Your task to perform on an android device: turn on javascript in the chrome app Image 0: 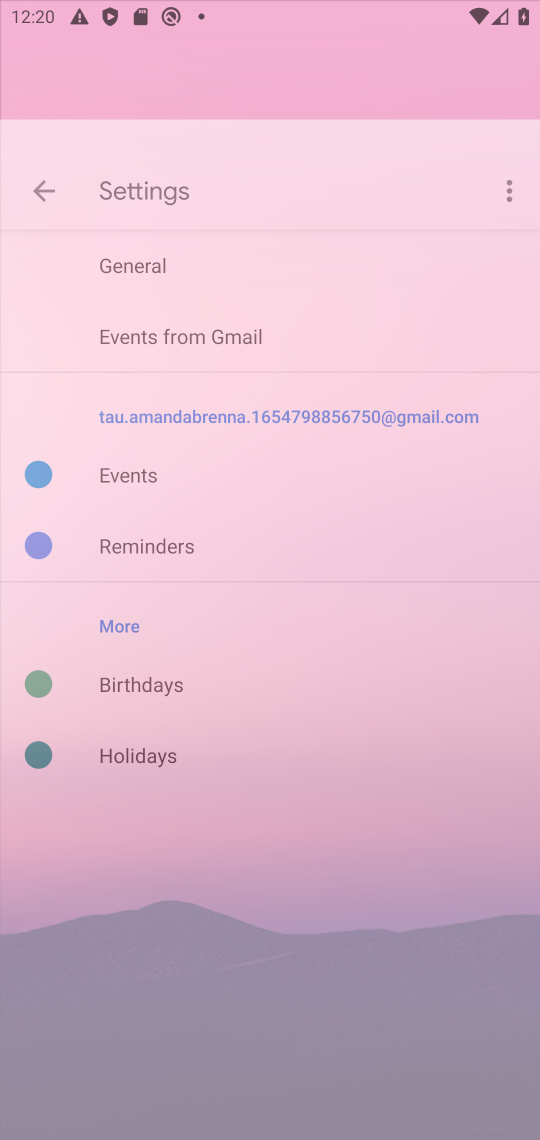
Step 0: click (214, 295)
Your task to perform on an android device: turn on javascript in the chrome app Image 1: 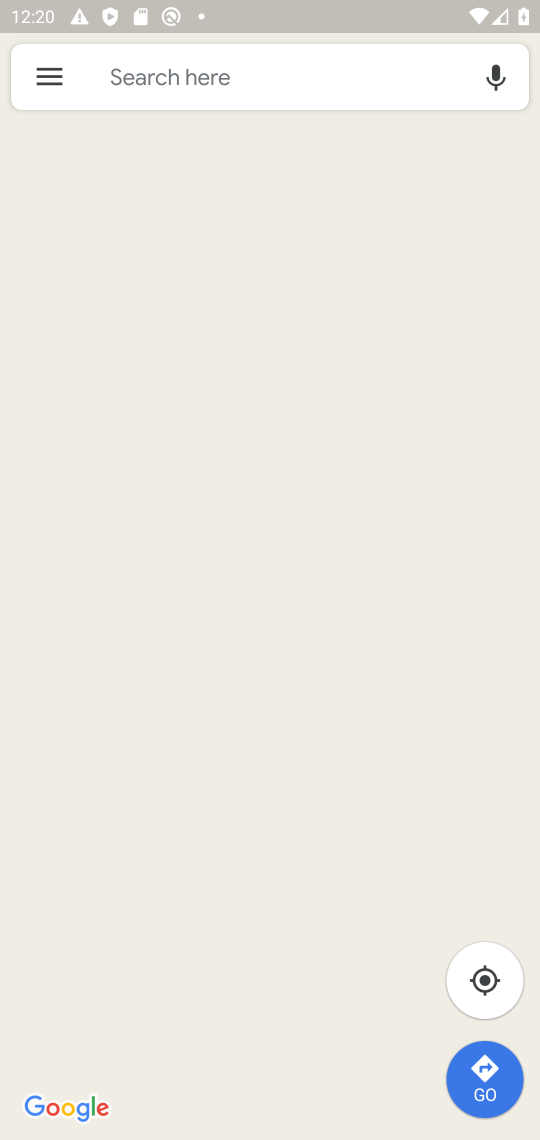
Step 1: press home button
Your task to perform on an android device: turn on javascript in the chrome app Image 2: 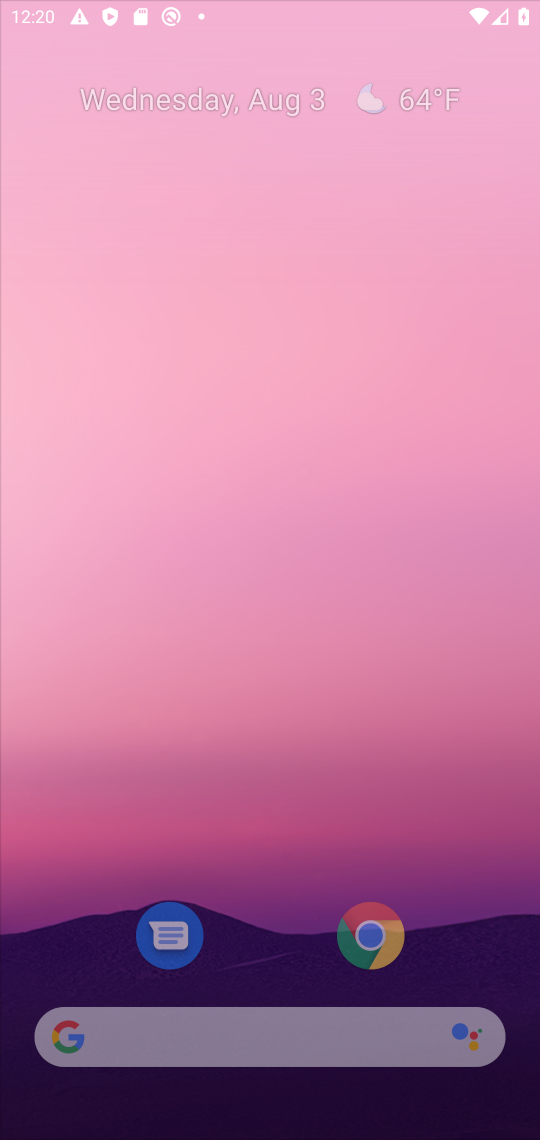
Step 2: press home button
Your task to perform on an android device: turn on javascript in the chrome app Image 3: 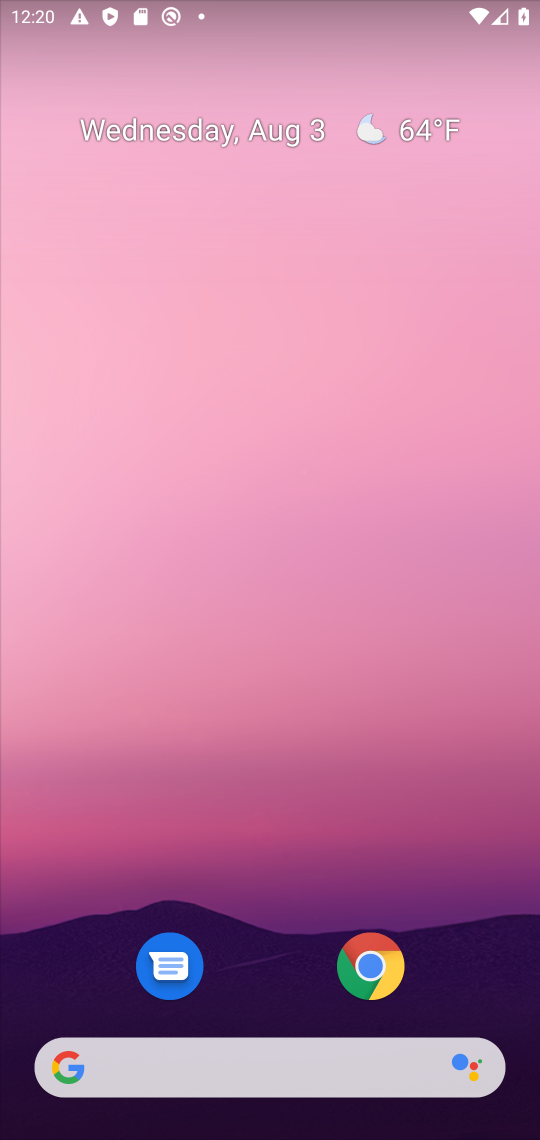
Step 3: drag from (273, 872) to (152, 286)
Your task to perform on an android device: turn on javascript in the chrome app Image 4: 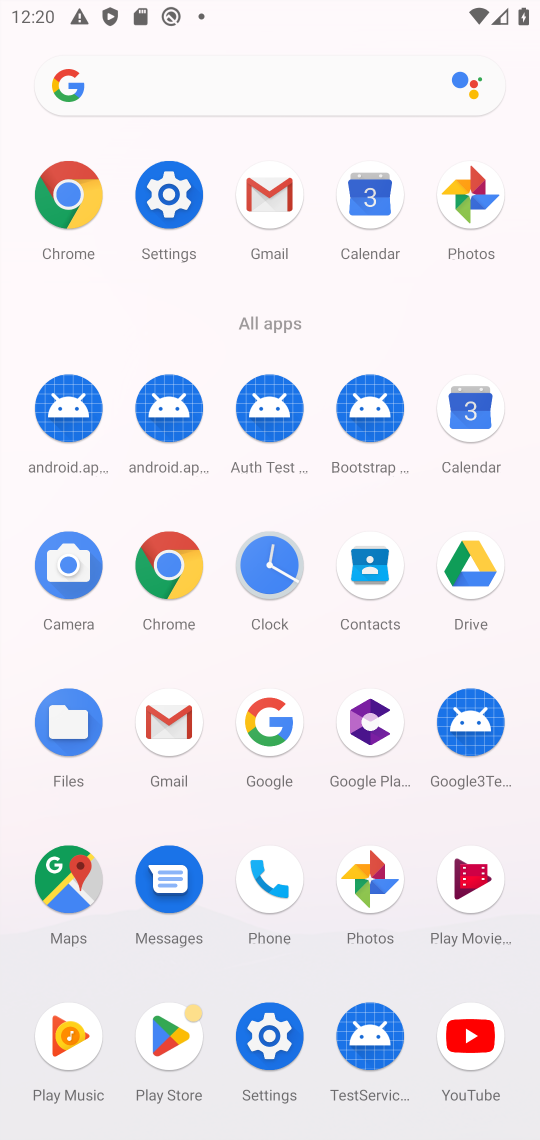
Step 4: click (92, 200)
Your task to perform on an android device: turn on javascript in the chrome app Image 5: 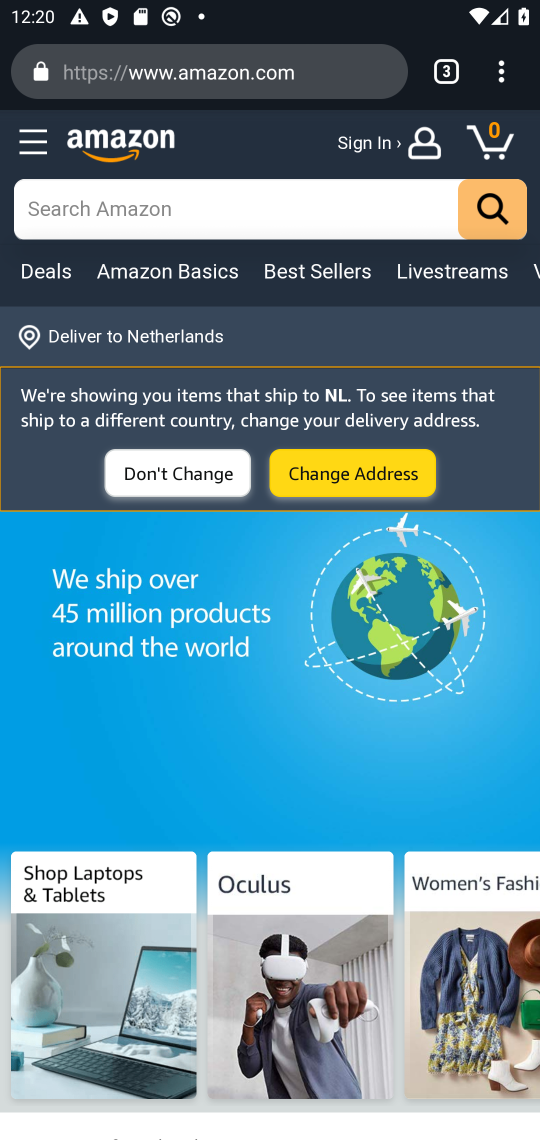
Step 5: click (504, 78)
Your task to perform on an android device: turn on javascript in the chrome app Image 6: 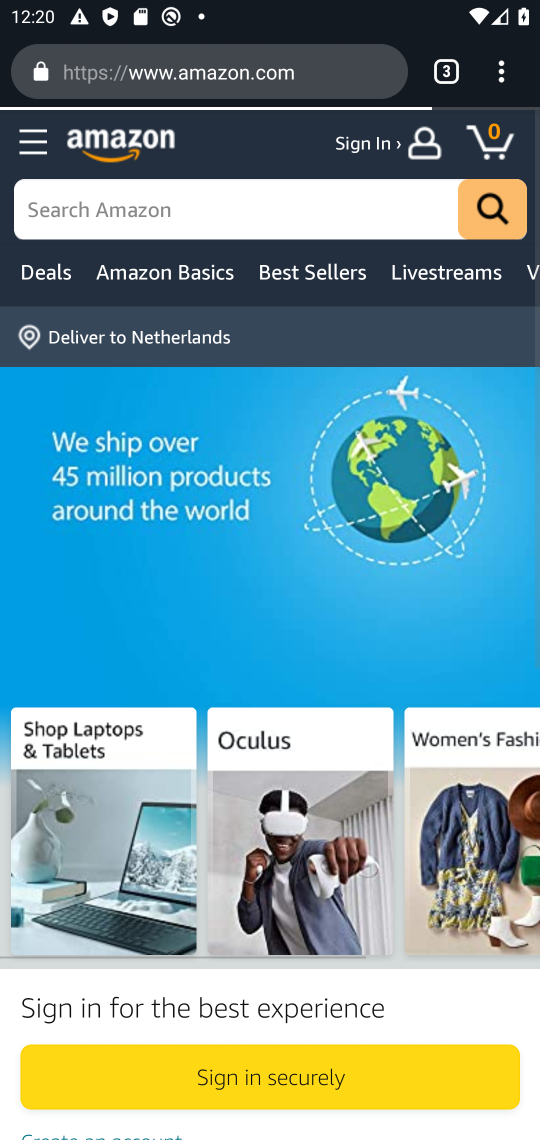
Step 6: click (500, 77)
Your task to perform on an android device: turn on javascript in the chrome app Image 7: 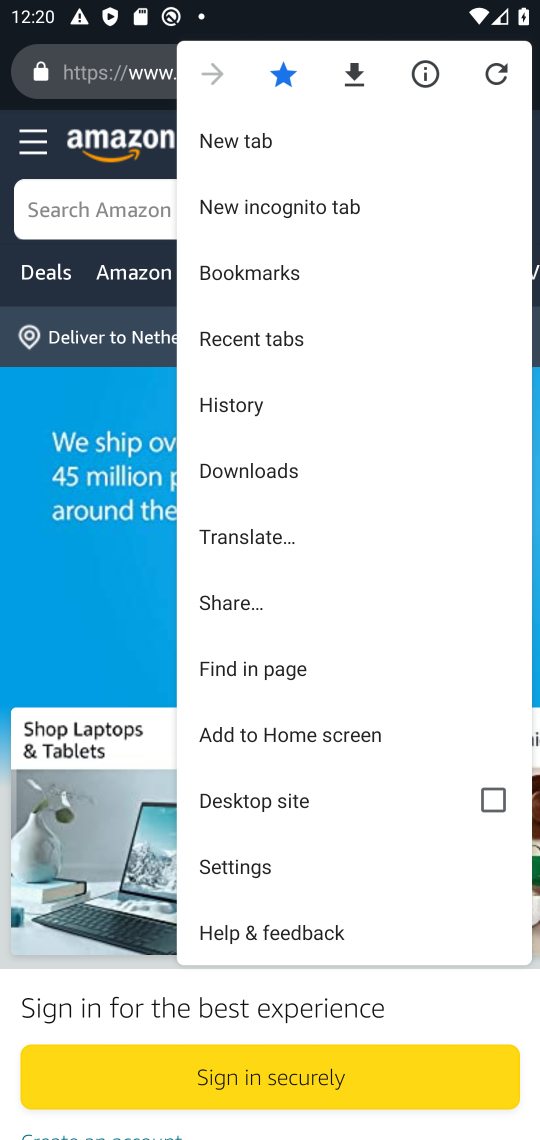
Step 7: drag from (291, 842) to (286, 463)
Your task to perform on an android device: turn on javascript in the chrome app Image 8: 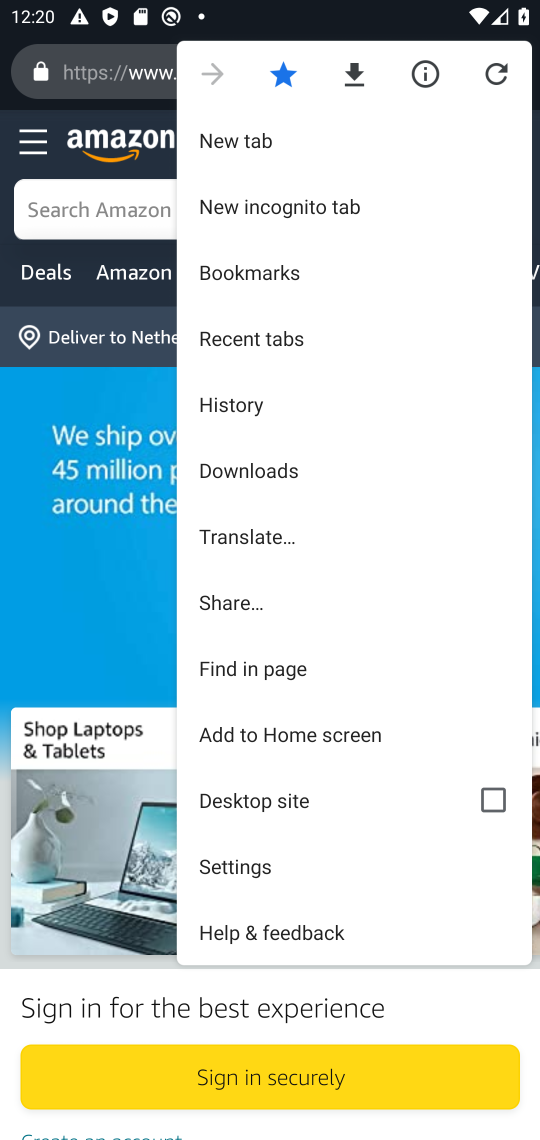
Step 8: click (243, 846)
Your task to perform on an android device: turn on javascript in the chrome app Image 9: 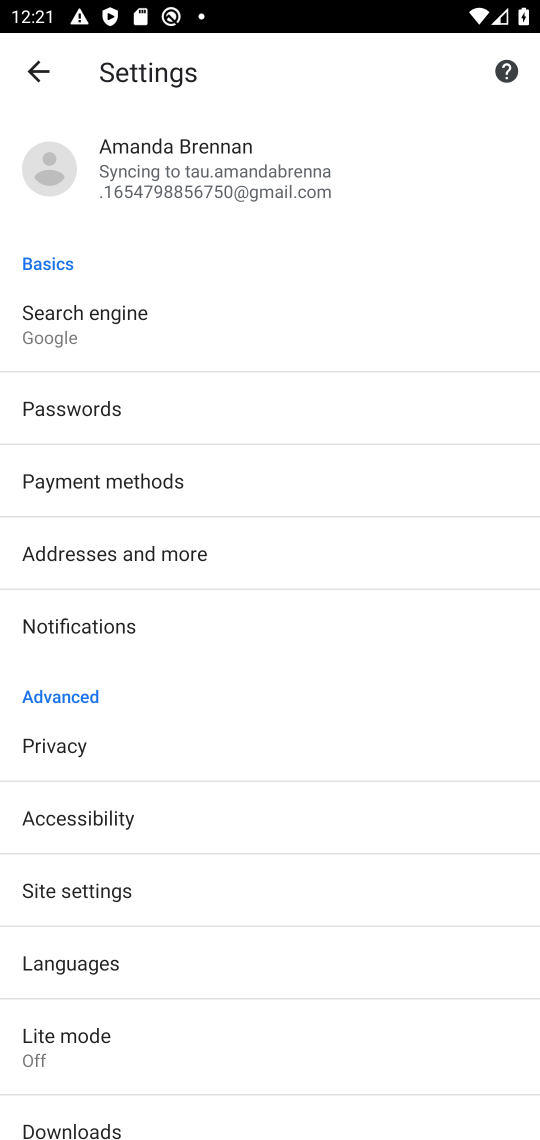
Step 9: click (184, 878)
Your task to perform on an android device: turn on javascript in the chrome app Image 10: 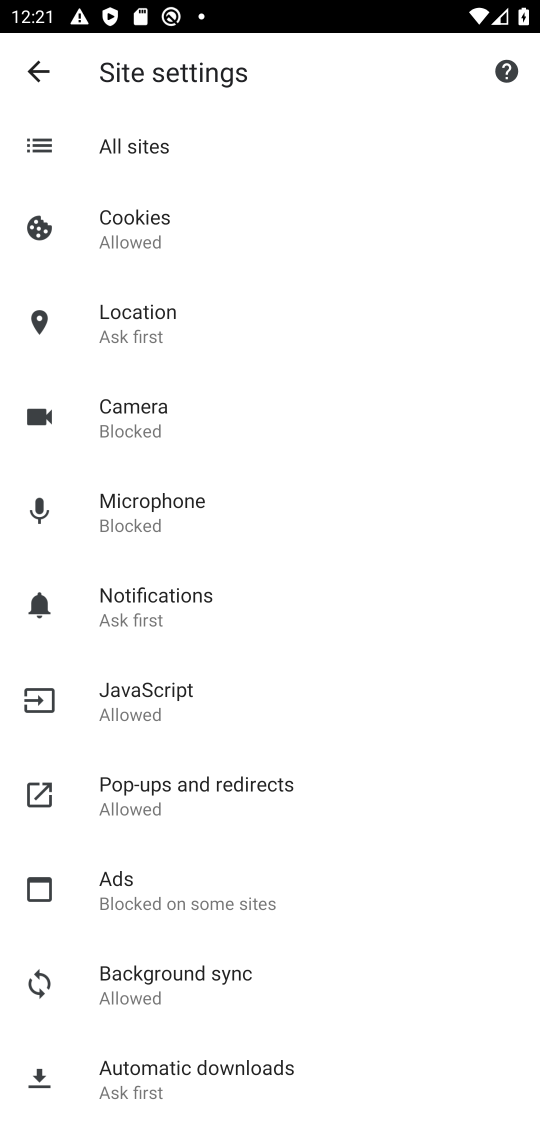
Step 10: click (195, 715)
Your task to perform on an android device: turn on javascript in the chrome app Image 11: 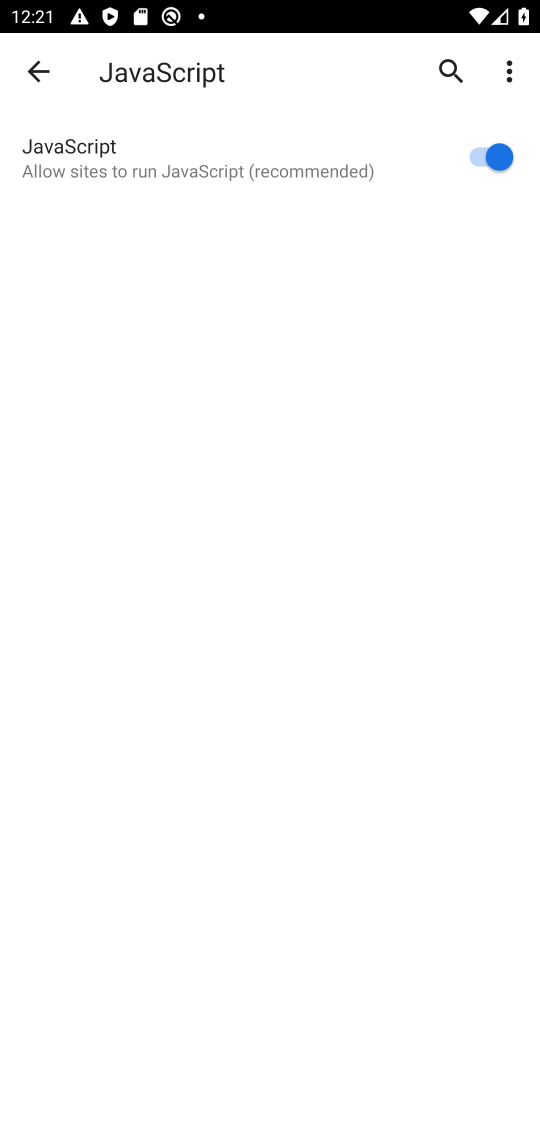
Step 11: task complete